Your task to perform on an android device: Search for Mexican restaurants on Maps Image 0: 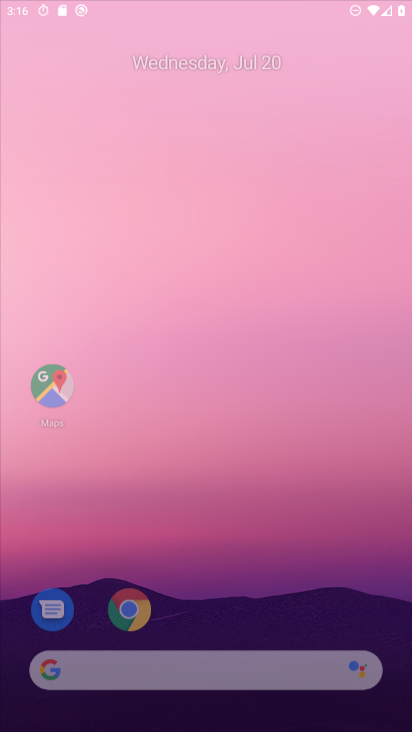
Step 0: click (198, 175)
Your task to perform on an android device: Search for Mexican restaurants on Maps Image 1: 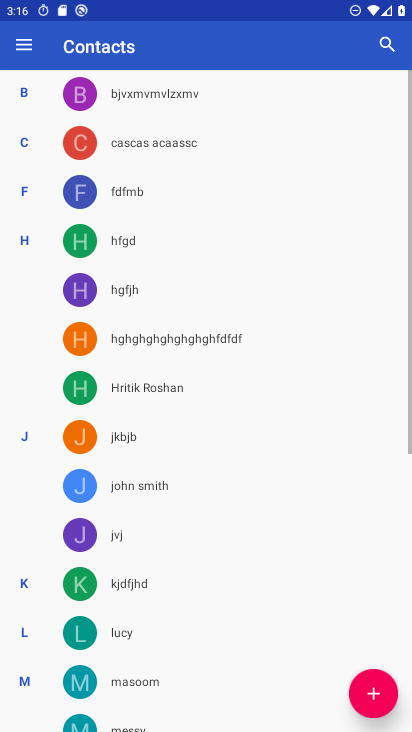
Step 1: task complete